Your task to perform on an android device: Is it going to rain today? Image 0: 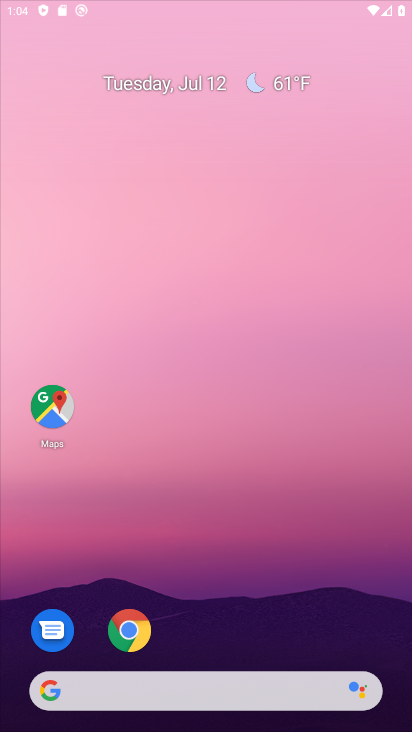
Step 0: drag from (194, 552) to (182, 119)
Your task to perform on an android device: Is it going to rain today? Image 1: 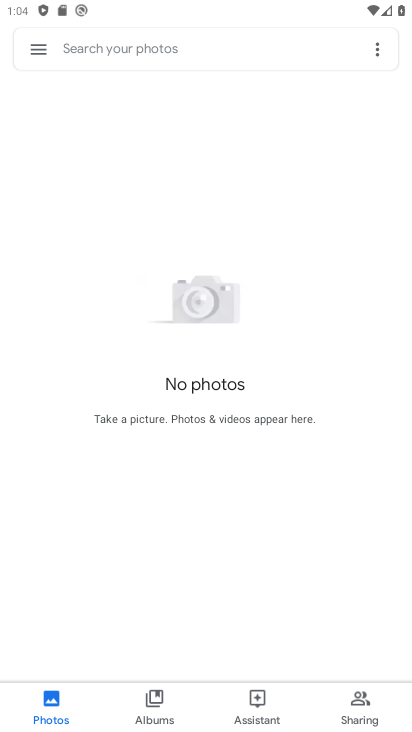
Step 1: press home button
Your task to perform on an android device: Is it going to rain today? Image 2: 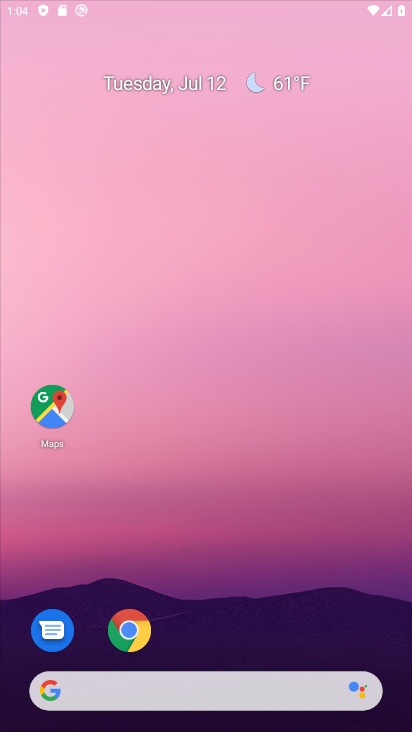
Step 2: drag from (199, 170) to (199, 115)
Your task to perform on an android device: Is it going to rain today? Image 3: 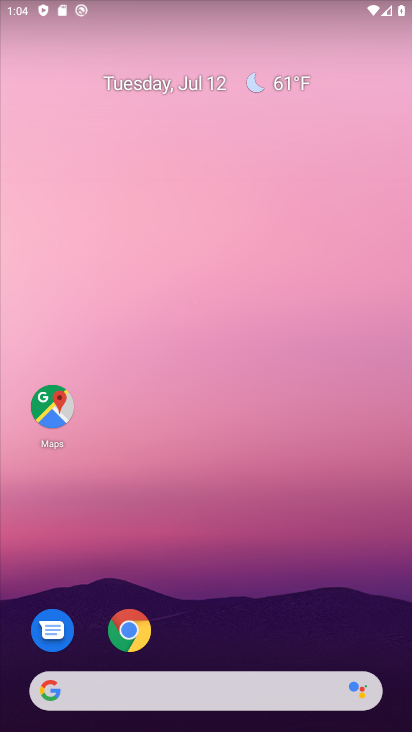
Step 3: drag from (210, 626) to (238, 187)
Your task to perform on an android device: Is it going to rain today? Image 4: 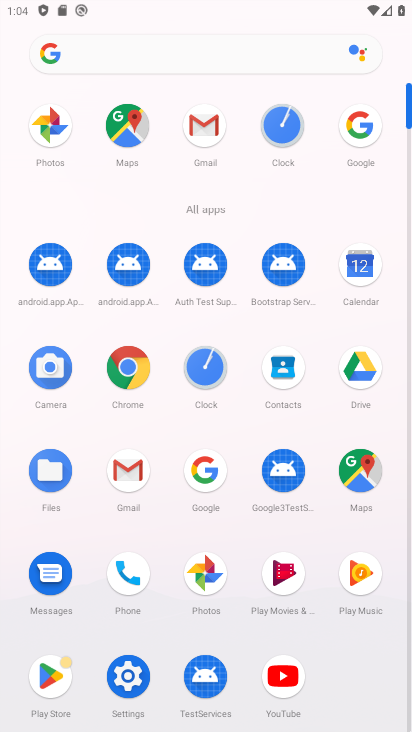
Step 4: click (356, 148)
Your task to perform on an android device: Is it going to rain today? Image 5: 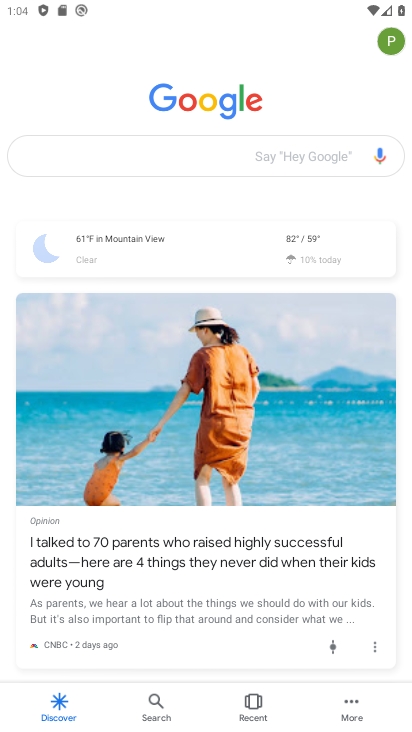
Step 5: click (137, 236)
Your task to perform on an android device: Is it going to rain today? Image 6: 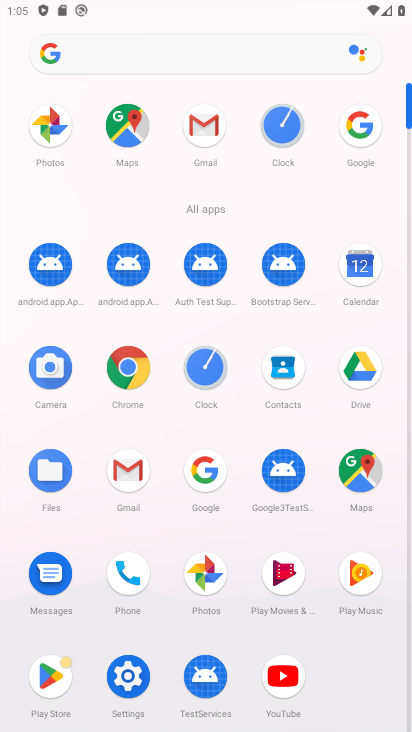
Step 6: task complete